Your task to perform on an android device: Toggle the flashlight Image 0: 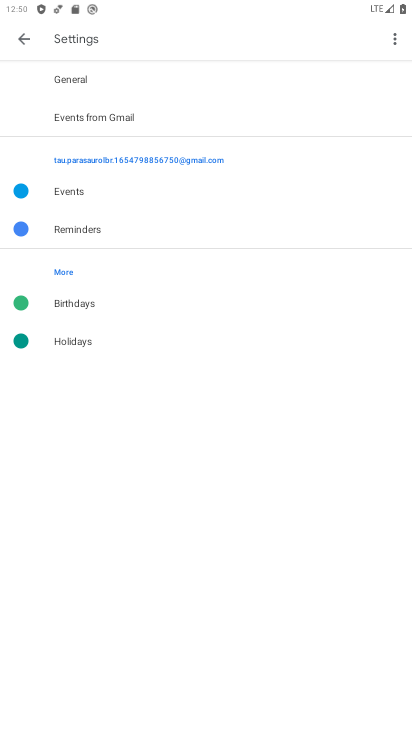
Step 0: press back button
Your task to perform on an android device: Toggle the flashlight Image 1: 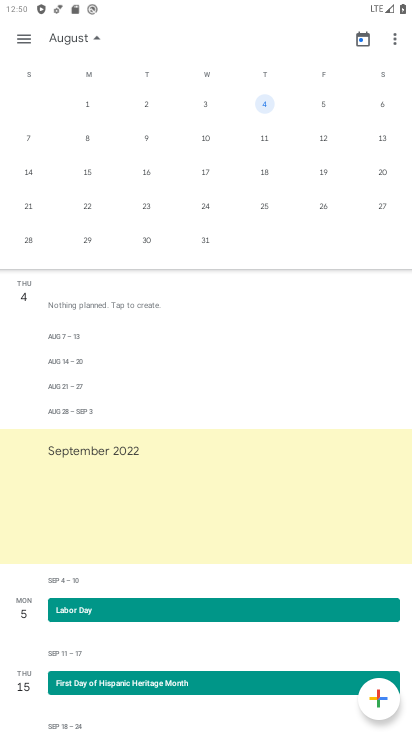
Step 1: press home button
Your task to perform on an android device: Toggle the flashlight Image 2: 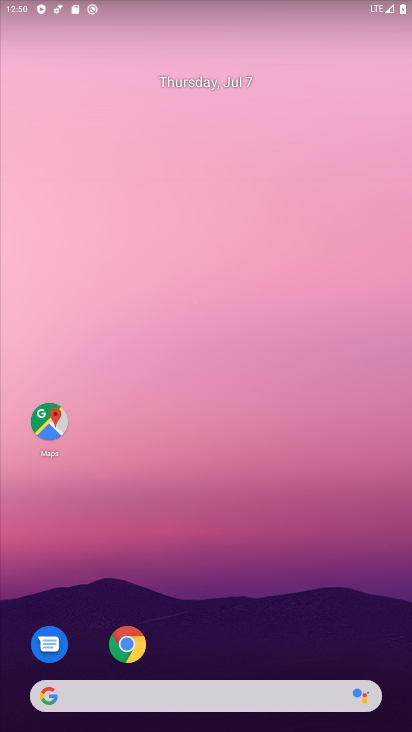
Step 2: drag from (388, 699) to (351, 125)
Your task to perform on an android device: Toggle the flashlight Image 3: 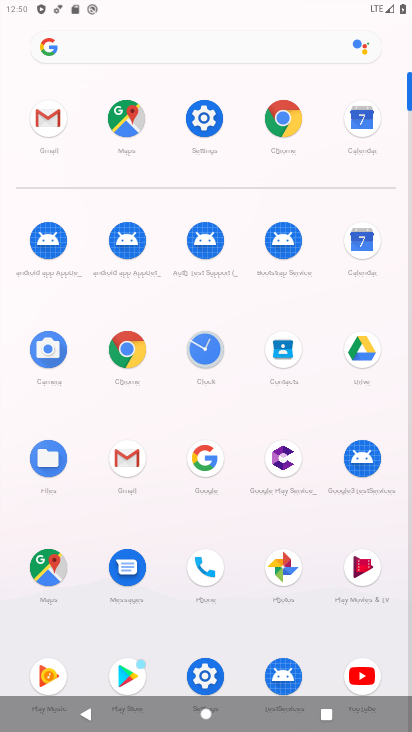
Step 3: drag from (215, 115) to (156, 333)
Your task to perform on an android device: Toggle the flashlight Image 4: 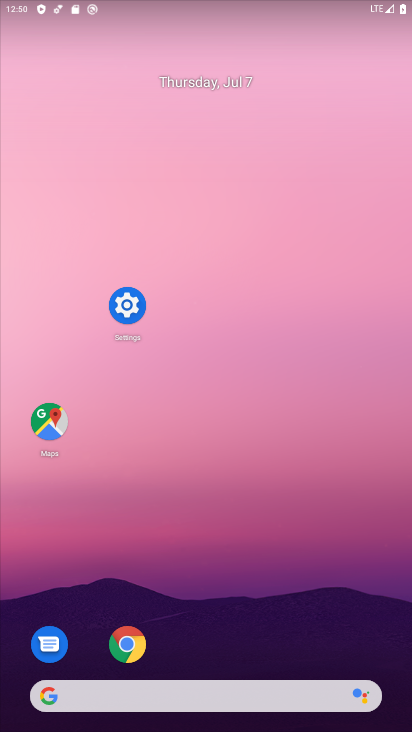
Step 4: drag from (396, 719) to (368, 69)
Your task to perform on an android device: Toggle the flashlight Image 5: 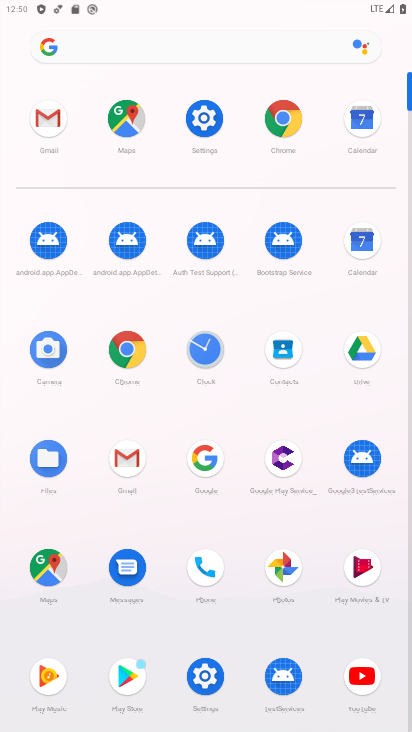
Step 5: drag from (43, 115) to (101, 138)
Your task to perform on an android device: Toggle the flashlight Image 6: 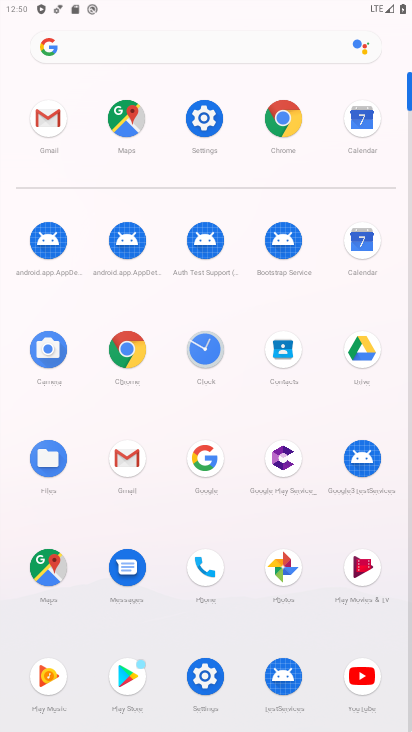
Step 6: drag from (50, 113) to (269, 457)
Your task to perform on an android device: Toggle the flashlight Image 7: 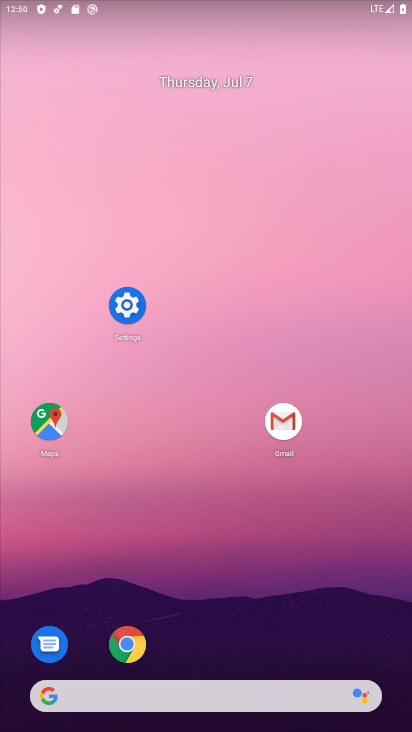
Step 7: click (132, 301)
Your task to perform on an android device: Toggle the flashlight Image 8: 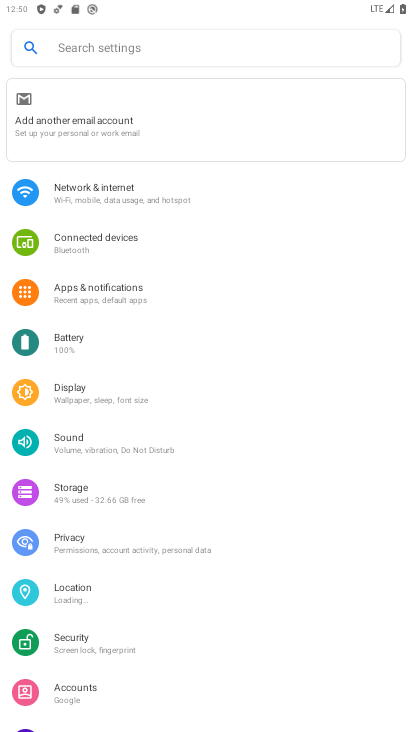
Step 8: click (84, 393)
Your task to perform on an android device: Toggle the flashlight Image 9: 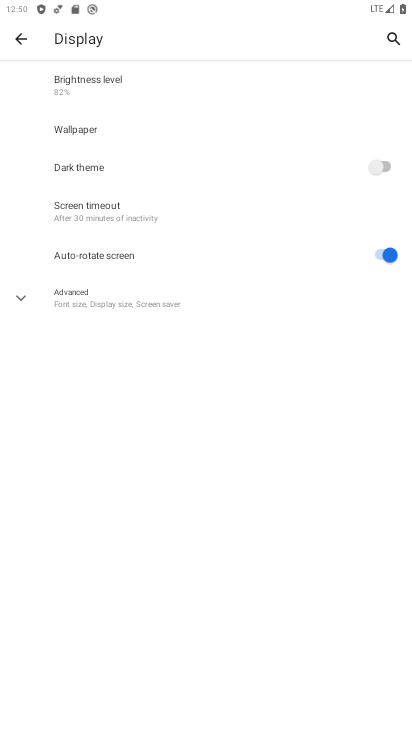
Step 9: click (18, 292)
Your task to perform on an android device: Toggle the flashlight Image 10: 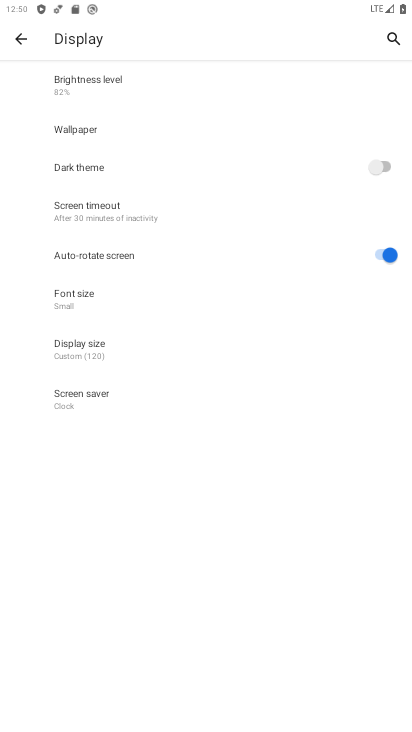
Step 10: task complete